Your task to perform on an android device: Open Yahoo.com Image 0: 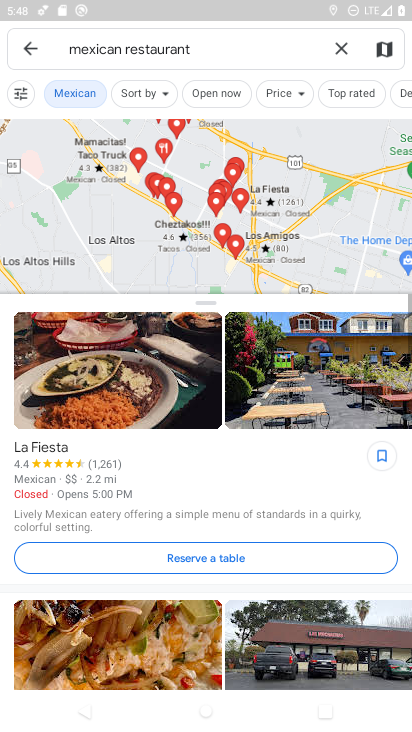
Step 0: click (128, 596)
Your task to perform on an android device: Open Yahoo.com Image 1: 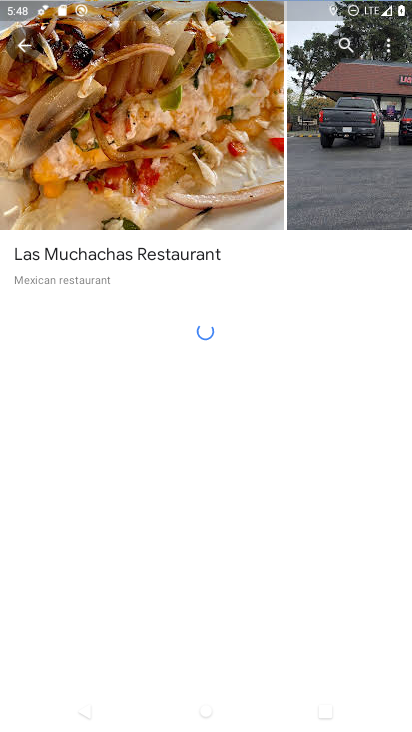
Step 1: press home button
Your task to perform on an android device: Open Yahoo.com Image 2: 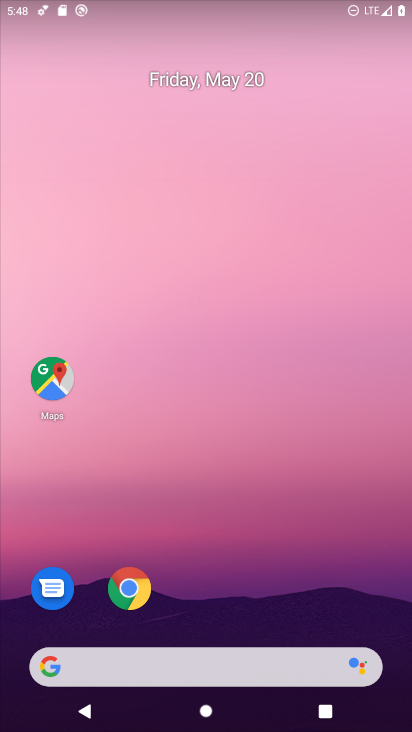
Step 2: click (137, 581)
Your task to perform on an android device: Open Yahoo.com Image 3: 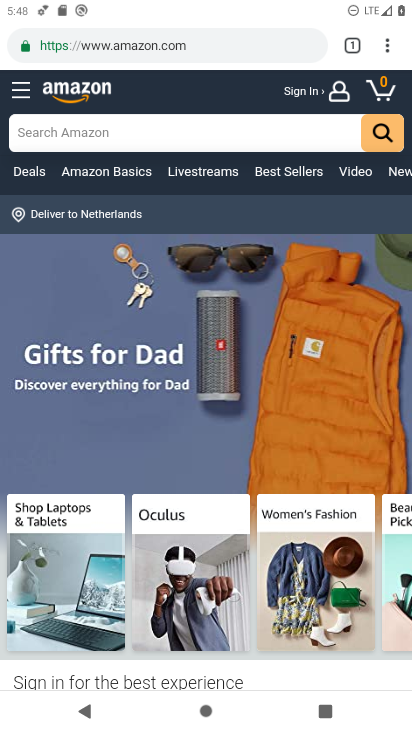
Step 3: click (172, 47)
Your task to perform on an android device: Open Yahoo.com Image 4: 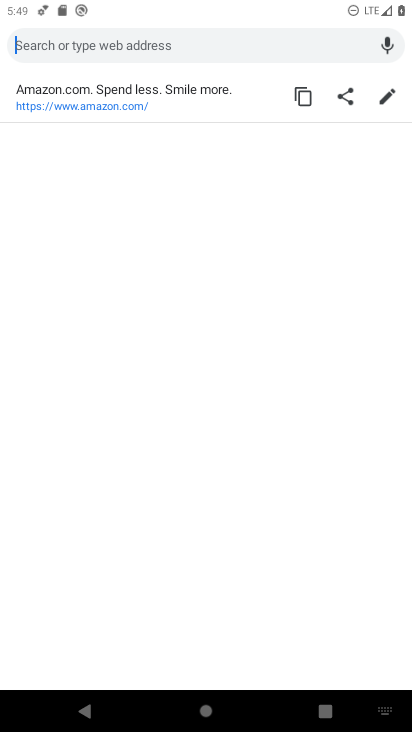
Step 4: type "www.yahoo.com"
Your task to perform on an android device: Open Yahoo.com Image 5: 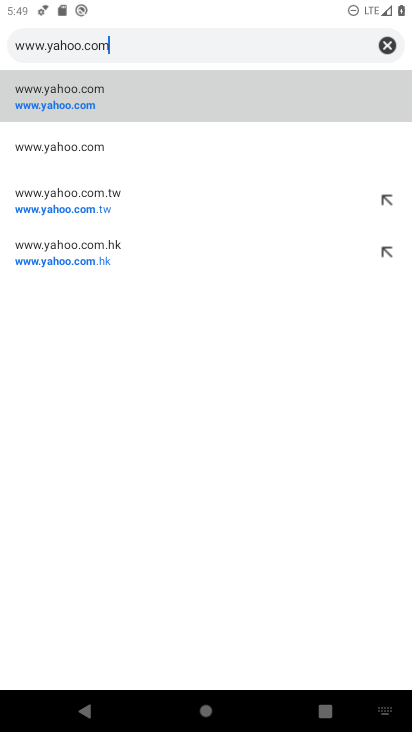
Step 5: click (62, 99)
Your task to perform on an android device: Open Yahoo.com Image 6: 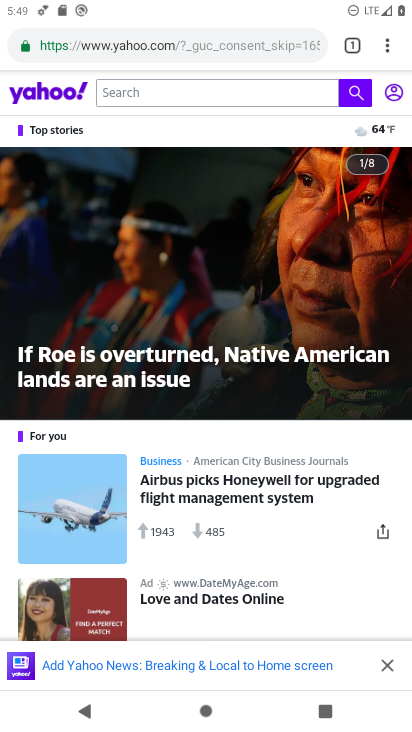
Step 6: task complete